Your task to perform on an android device: What's the latest video from GameSpot Trailers? Image 0: 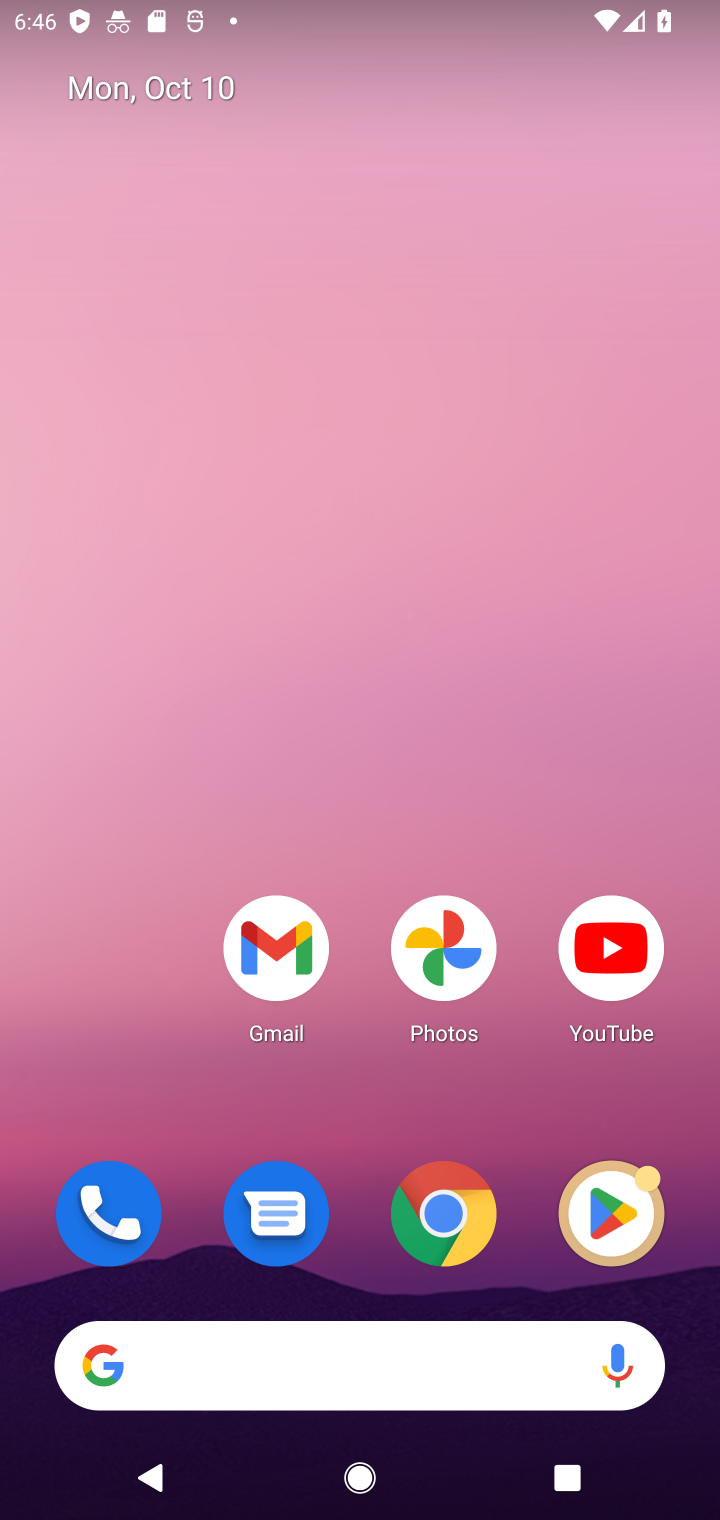
Step 0: click (607, 934)
Your task to perform on an android device: What's the latest video from GameSpot Trailers? Image 1: 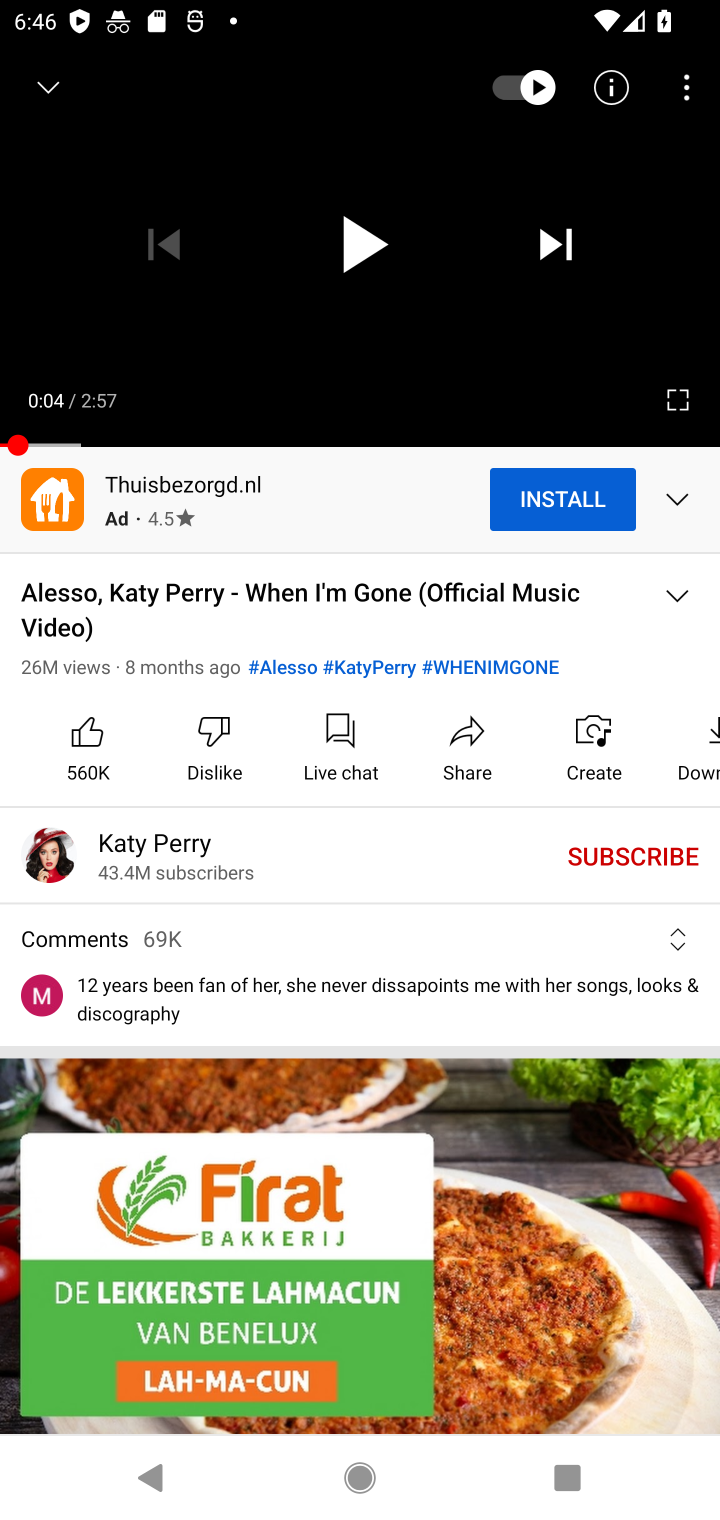
Step 1: click (52, 90)
Your task to perform on an android device: What's the latest video from GameSpot Trailers? Image 2: 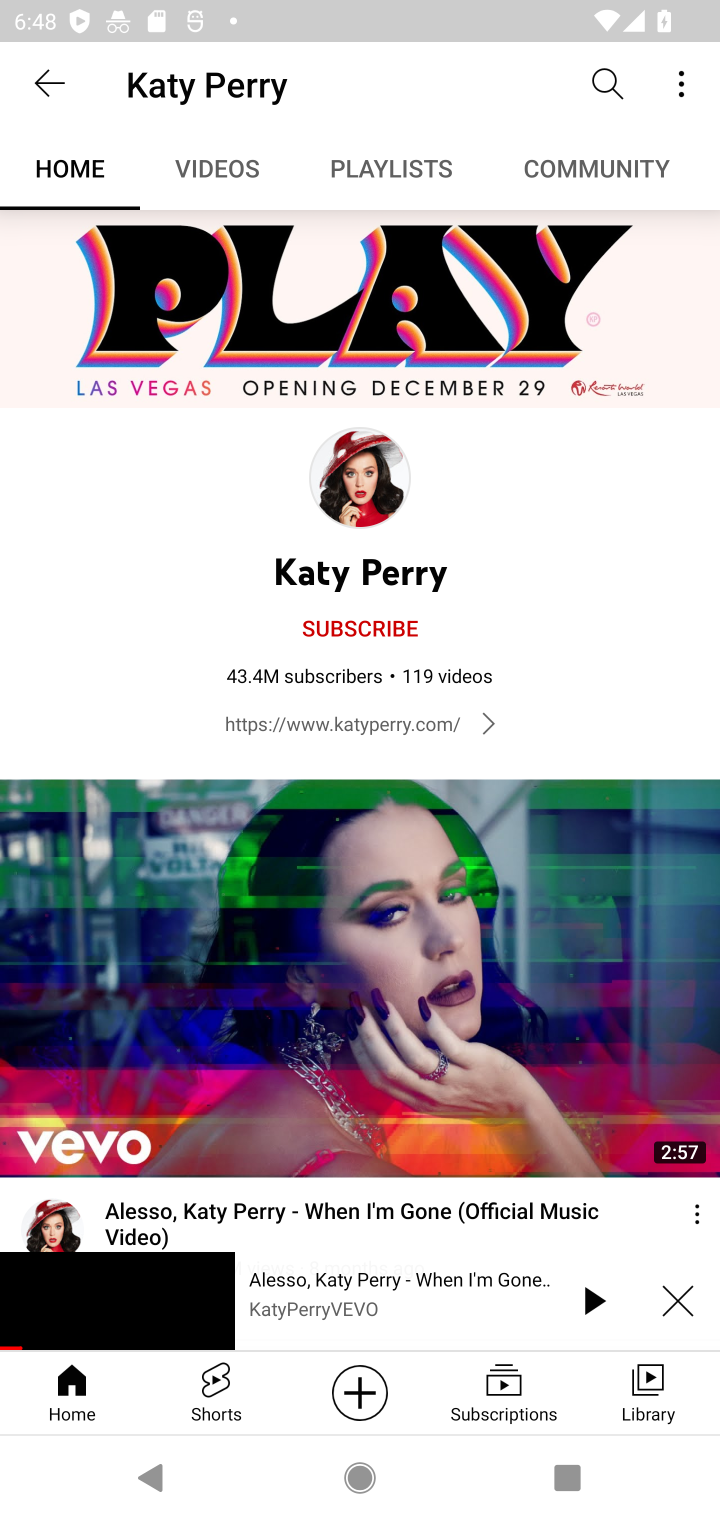
Step 2: click (599, 79)
Your task to perform on an android device: What's the latest video from GameSpot Trailers? Image 3: 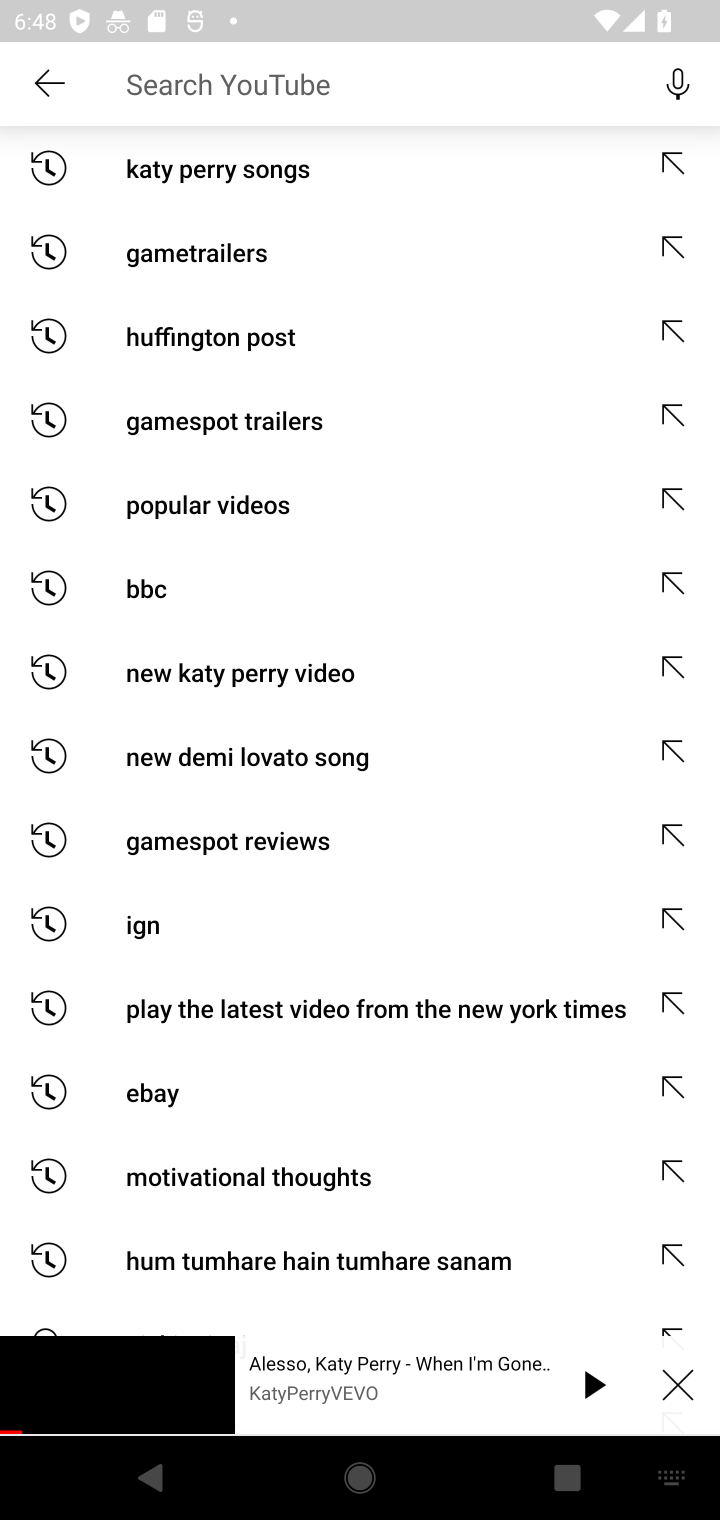
Step 3: click (215, 421)
Your task to perform on an android device: What's the latest video from GameSpot Trailers? Image 4: 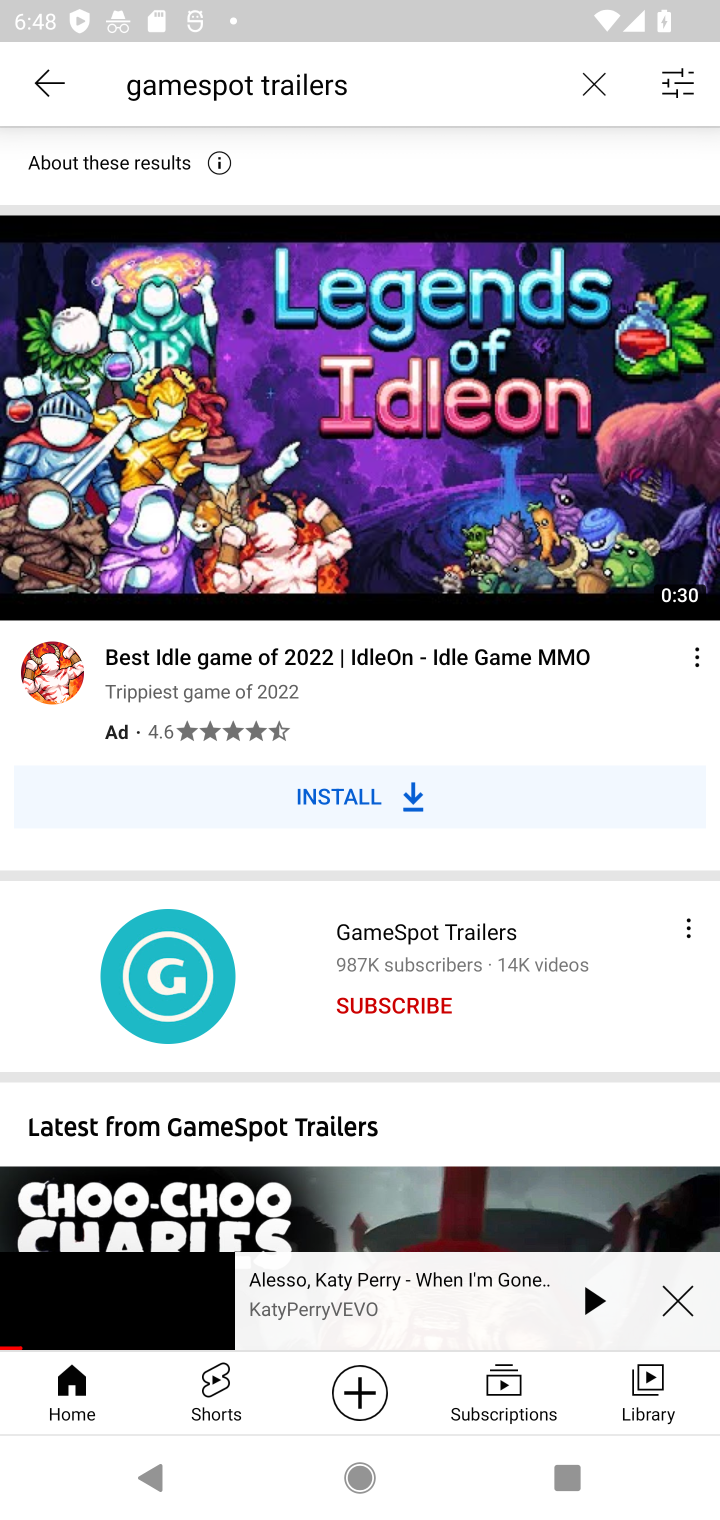
Step 4: drag from (348, 859) to (512, 275)
Your task to perform on an android device: What's the latest video from GameSpot Trailers? Image 5: 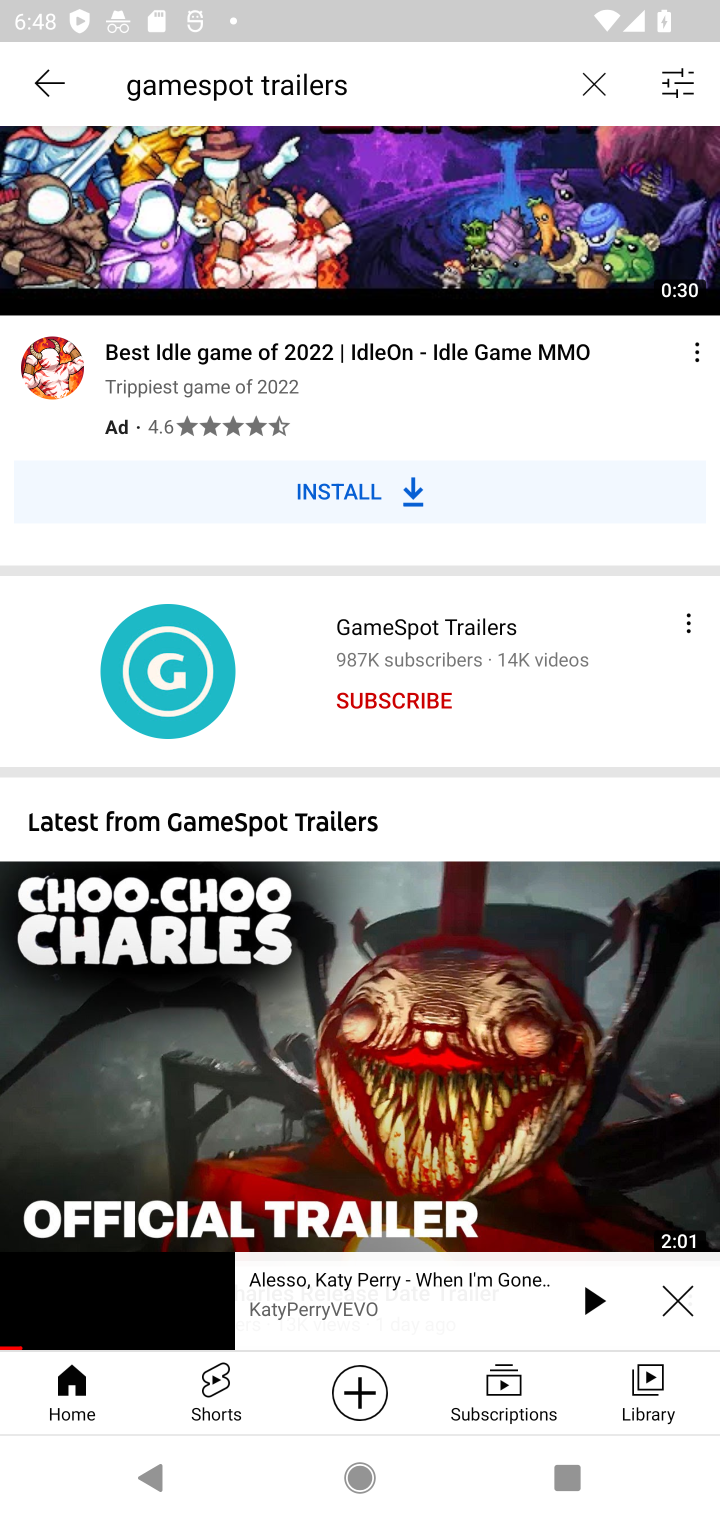
Step 5: click (351, 1007)
Your task to perform on an android device: What's the latest video from GameSpot Trailers? Image 6: 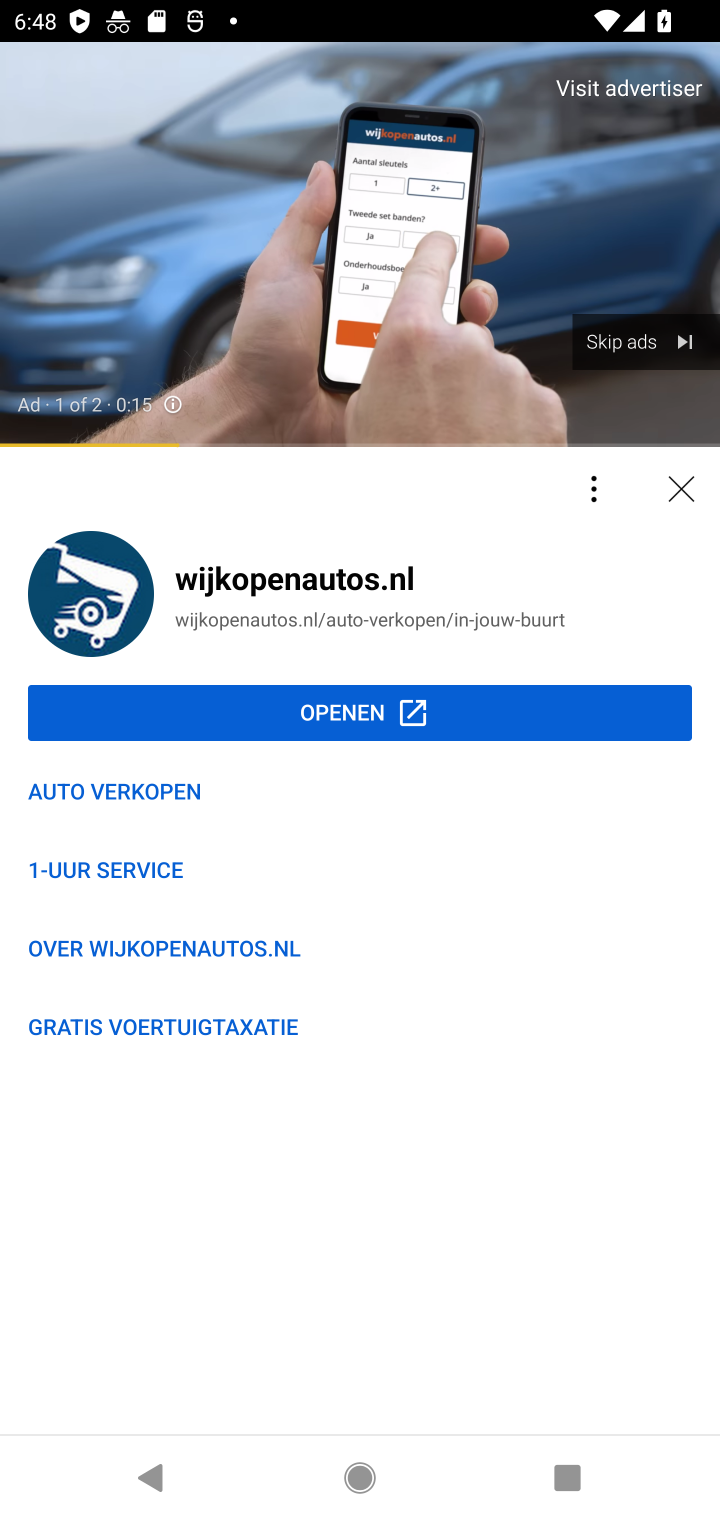
Step 6: click (351, 247)
Your task to perform on an android device: What's the latest video from GameSpot Trailers? Image 7: 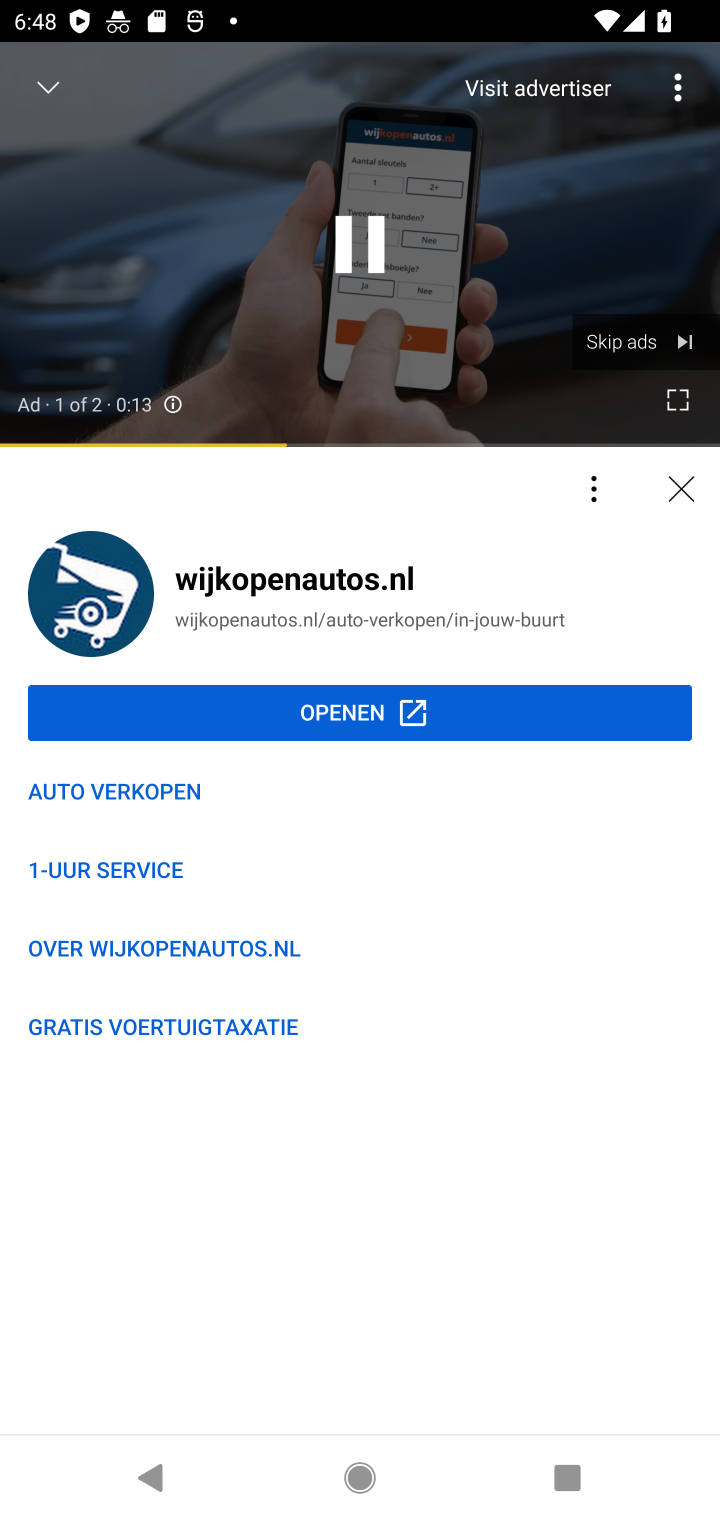
Step 7: click (367, 245)
Your task to perform on an android device: What's the latest video from GameSpot Trailers? Image 8: 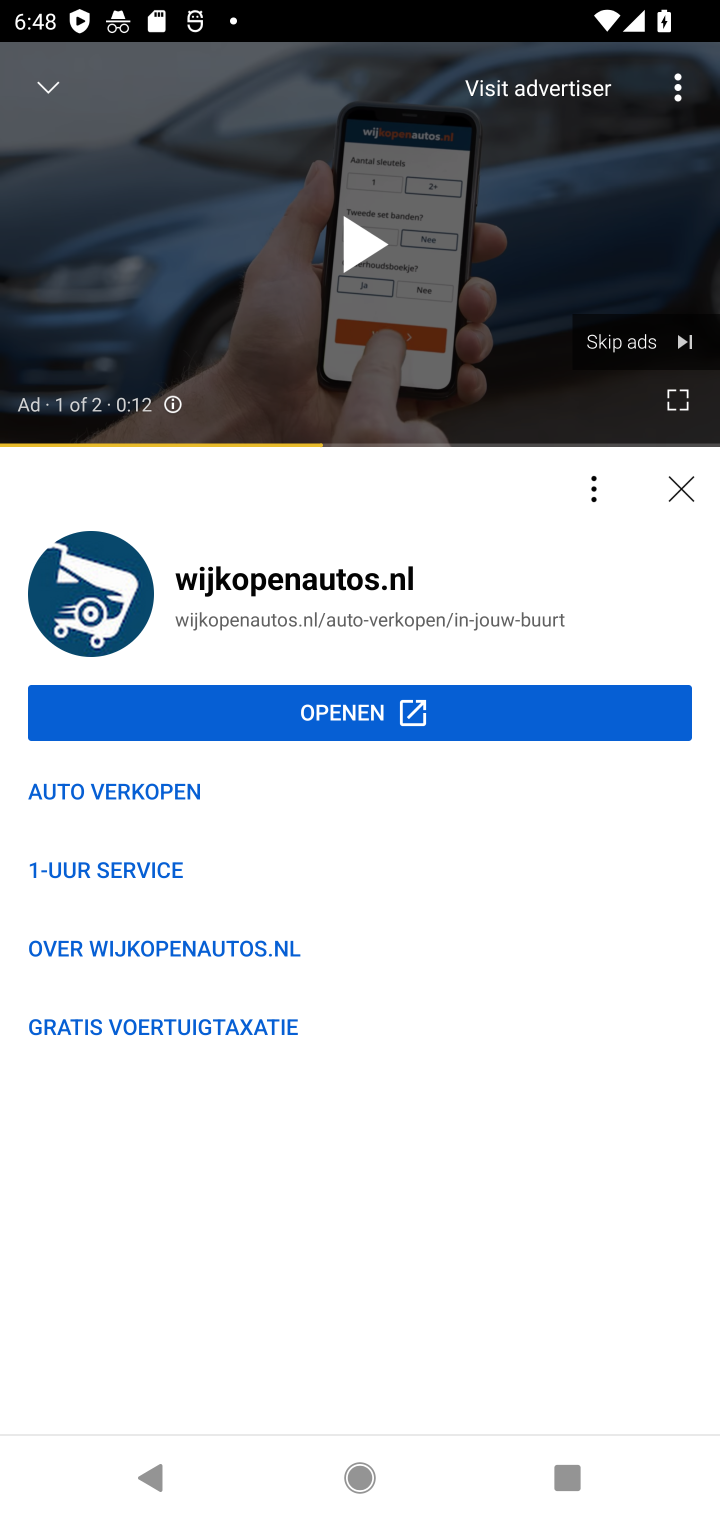
Step 8: task complete